Your task to perform on an android device: manage bookmarks in the chrome app Image 0: 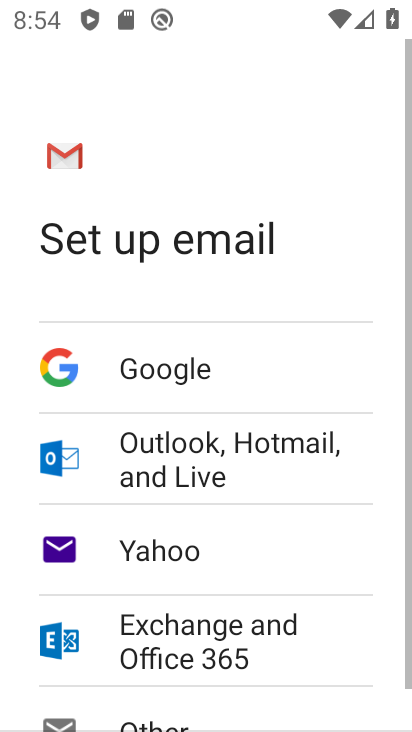
Step 0: press home button
Your task to perform on an android device: manage bookmarks in the chrome app Image 1: 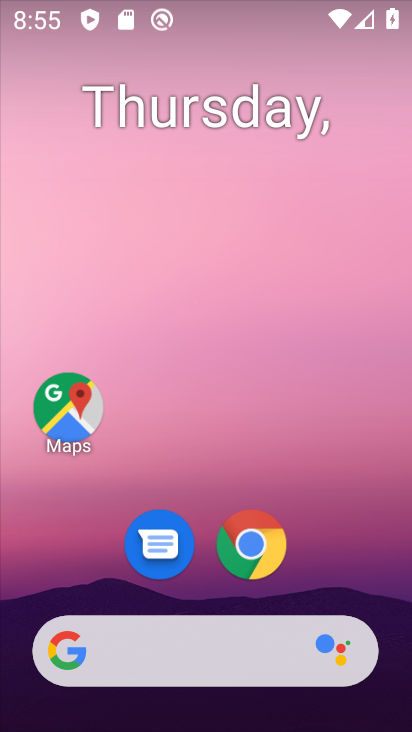
Step 1: click (266, 542)
Your task to perform on an android device: manage bookmarks in the chrome app Image 2: 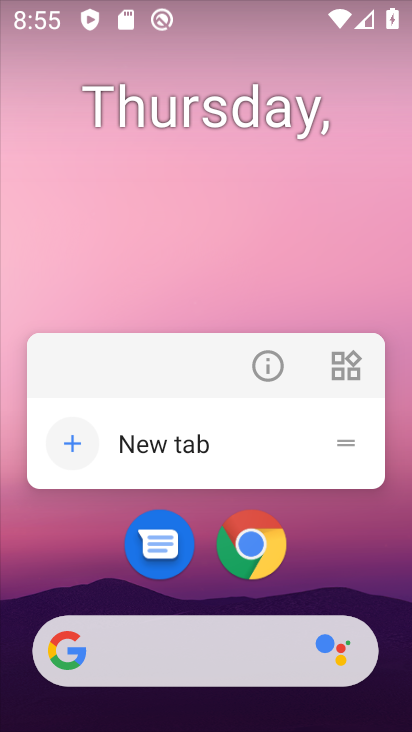
Step 2: click (266, 535)
Your task to perform on an android device: manage bookmarks in the chrome app Image 3: 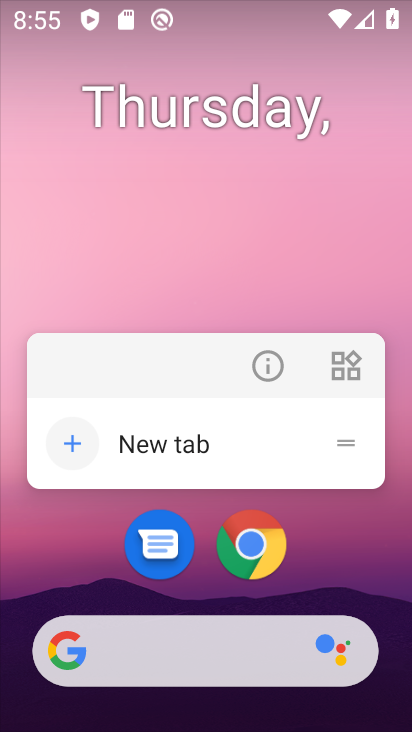
Step 3: click (248, 555)
Your task to perform on an android device: manage bookmarks in the chrome app Image 4: 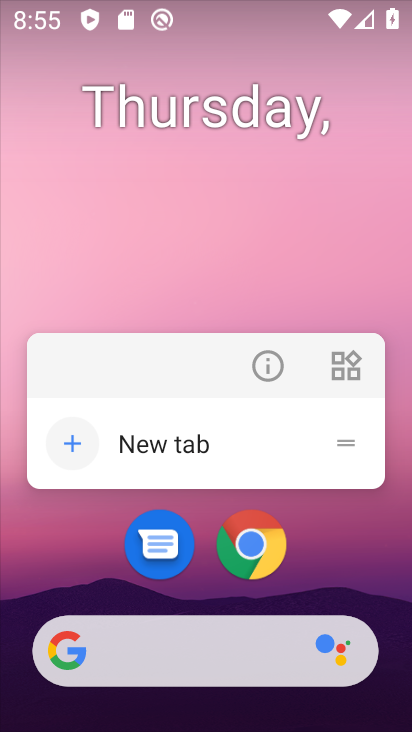
Step 4: click (266, 526)
Your task to perform on an android device: manage bookmarks in the chrome app Image 5: 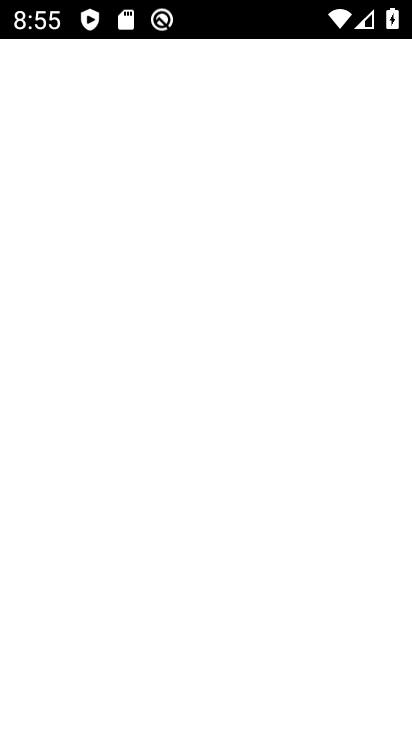
Step 5: click (266, 526)
Your task to perform on an android device: manage bookmarks in the chrome app Image 6: 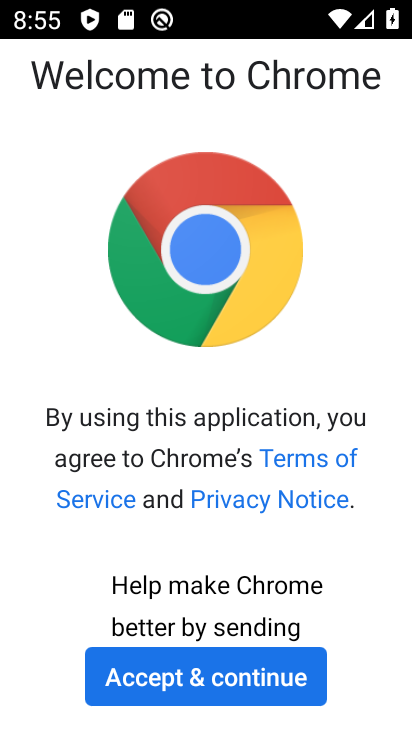
Step 6: click (237, 686)
Your task to perform on an android device: manage bookmarks in the chrome app Image 7: 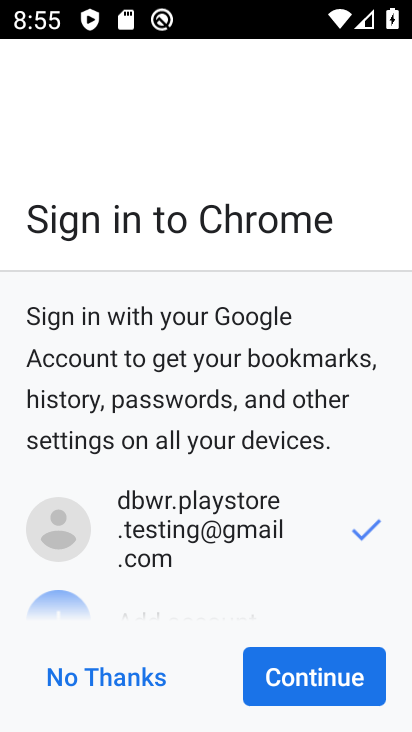
Step 7: click (360, 682)
Your task to perform on an android device: manage bookmarks in the chrome app Image 8: 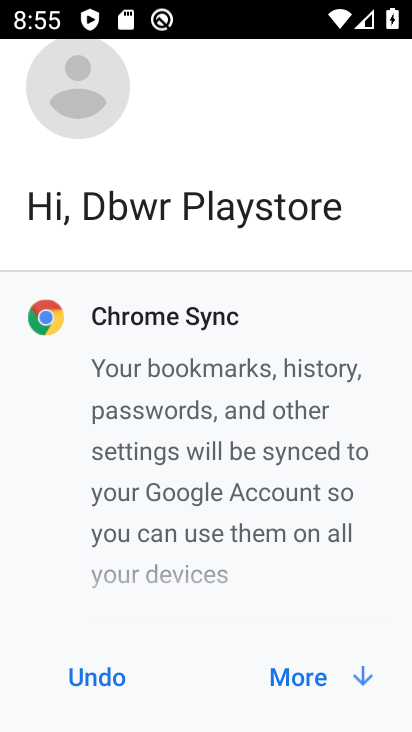
Step 8: click (343, 681)
Your task to perform on an android device: manage bookmarks in the chrome app Image 9: 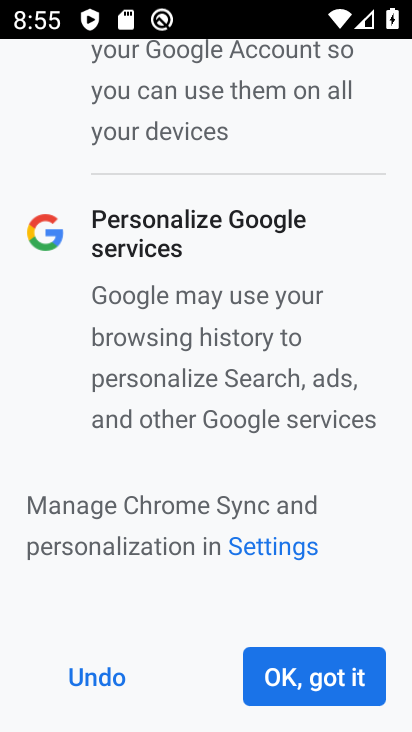
Step 9: click (357, 667)
Your task to perform on an android device: manage bookmarks in the chrome app Image 10: 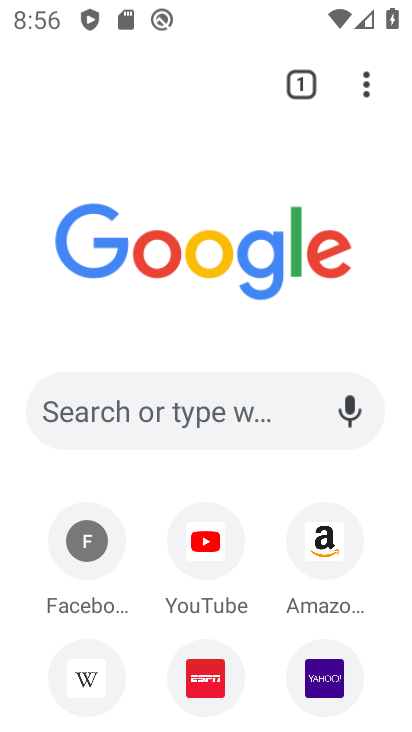
Step 10: drag from (367, 72) to (271, 212)
Your task to perform on an android device: manage bookmarks in the chrome app Image 11: 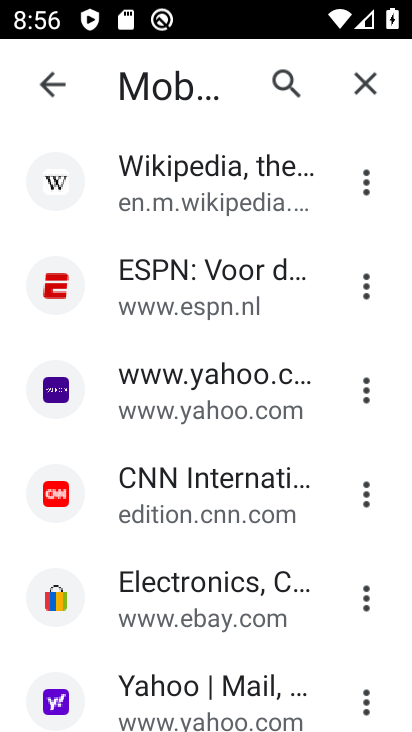
Step 11: click (252, 162)
Your task to perform on an android device: manage bookmarks in the chrome app Image 12: 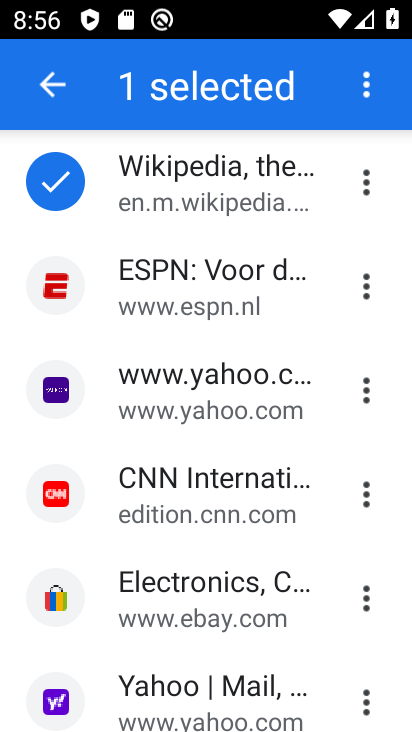
Step 12: click (164, 291)
Your task to perform on an android device: manage bookmarks in the chrome app Image 13: 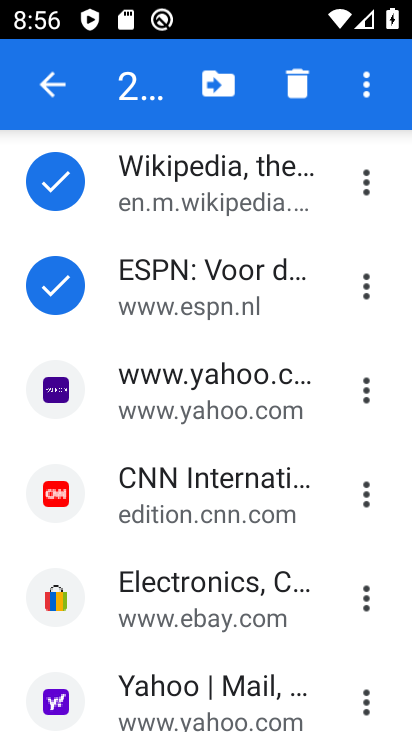
Step 13: click (165, 399)
Your task to perform on an android device: manage bookmarks in the chrome app Image 14: 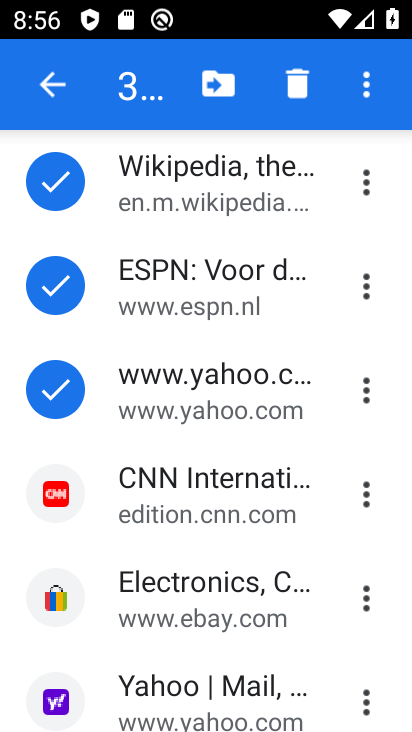
Step 14: click (165, 488)
Your task to perform on an android device: manage bookmarks in the chrome app Image 15: 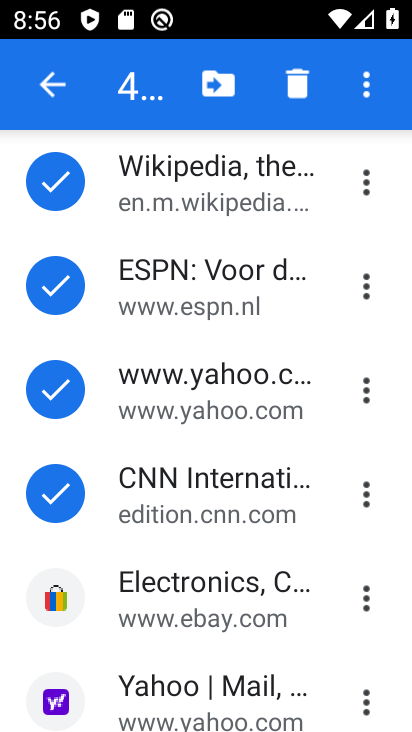
Step 15: click (169, 594)
Your task to perform on an android device: manage bookmarks in the chrome app Image 16: 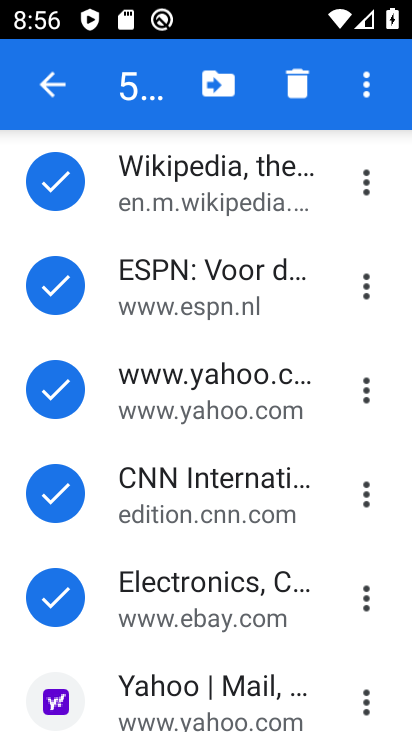
Step 16: drag from (157, 607) to (300, 60)
Your task to perform on an android device: manage bookmarks in the chrome app Image 17: 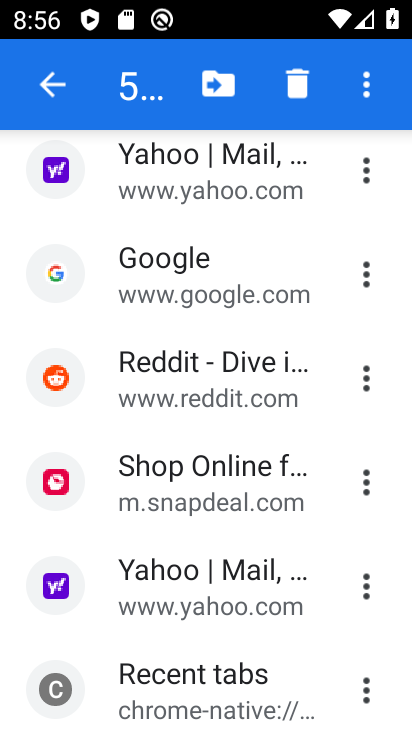
Step 17: click (190, 167)
Your task to perform on an android device: manage bookmarks in the chrome app Image 18: 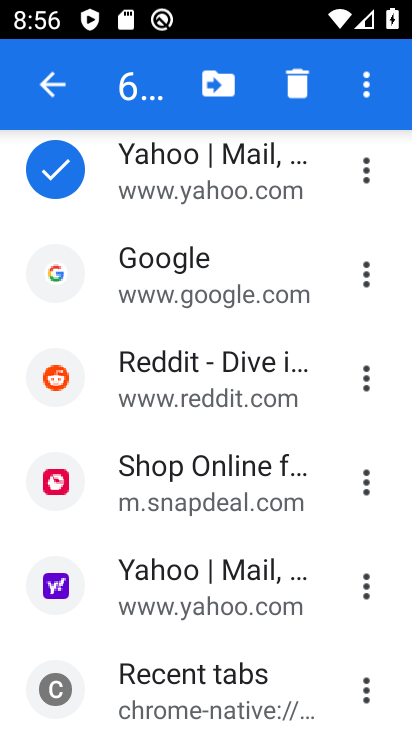
Step 18: click (193, 250)
Your task to perform on an android device: manage bookmarks in the chrome app Image 19: 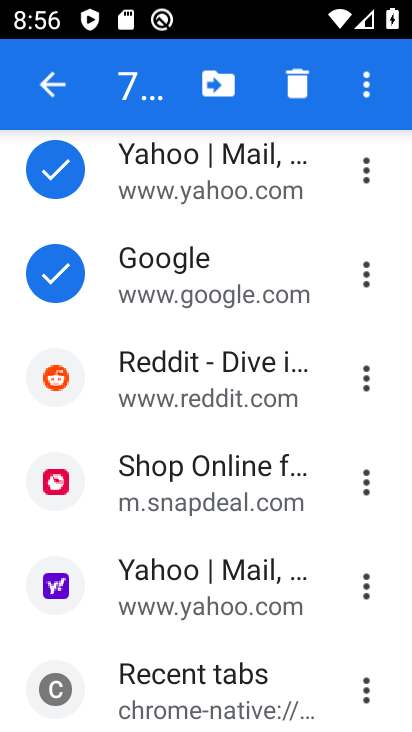
Step 19: click (187, 380)
Your task to perform on an android device: manage bookmarks in the chrome app Image 20: 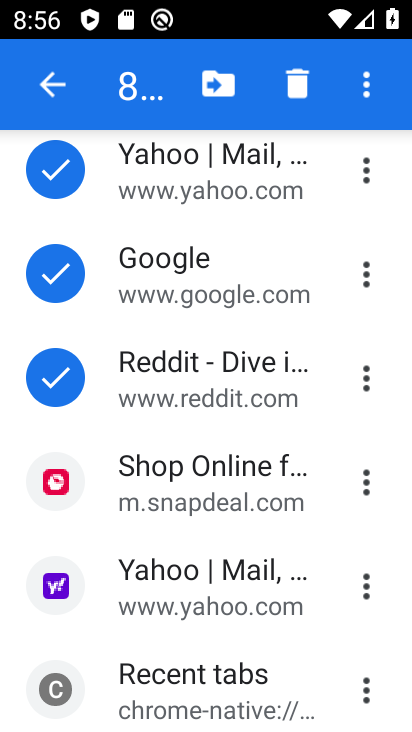
Step 20: click (151, 499)
Your task to perform on an android device: manage bookmarks in the chrome app Image 21: 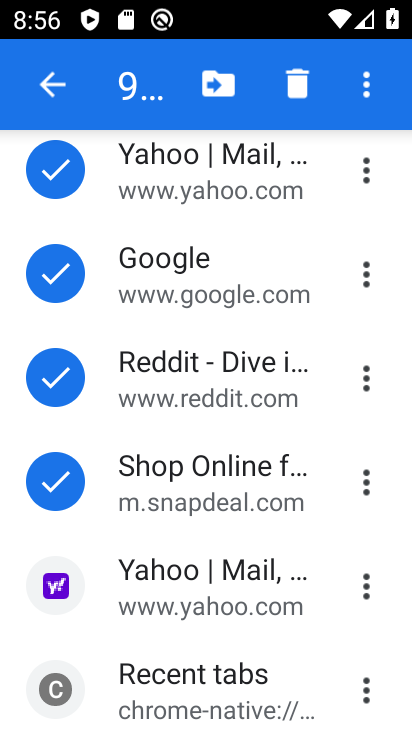
Step 21: click (162, 593)
Your task to perform on an android device: manage bookmarks in the chrome app Image 22: 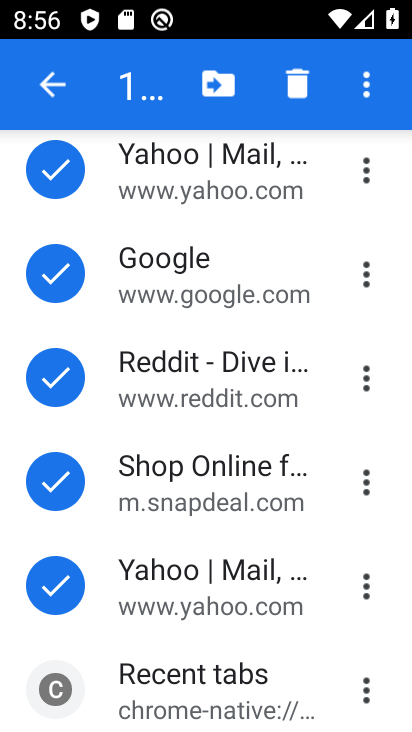
Step 22: click (162, 684)
Your task to perform on an android device: manage bookmarks in the chrome app Image 23: 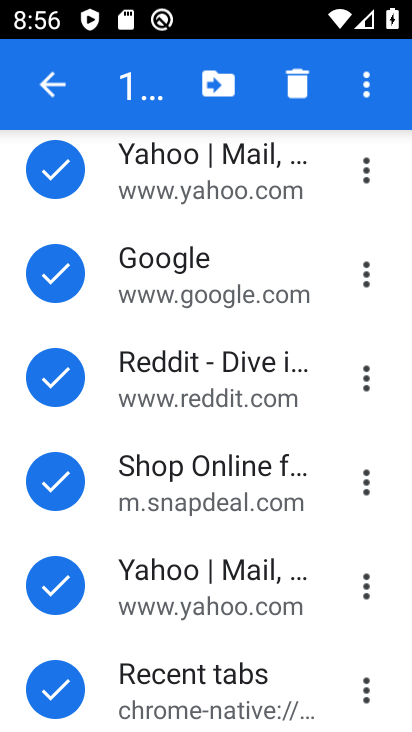
Step 23: drag from (174, 606) to (299, 40)
Your task to perform on an android device: manage bookmarks in the chrome app Image 24: 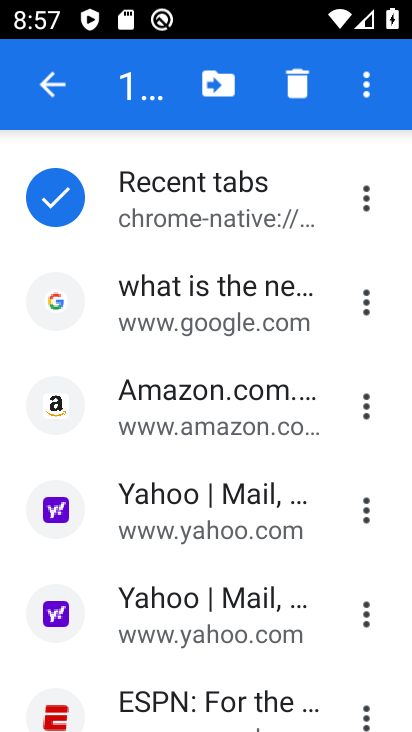
Step 24: click (195, 296)
Your task to perform on an android device: manage bookmarks in the chrome app Image 25: 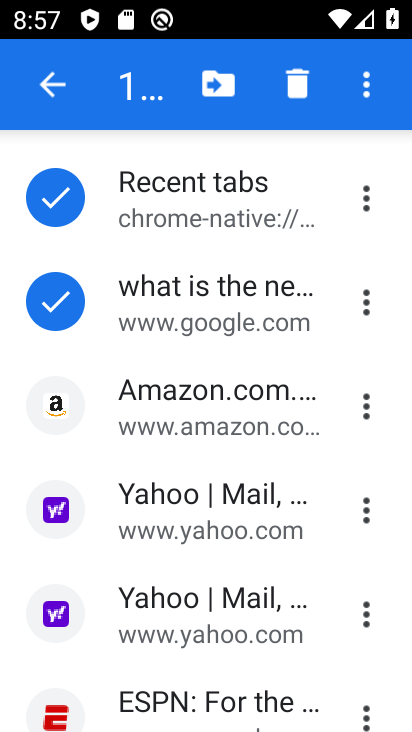
Step 25: click (176, 392)
Your task to perform on an android device: manage bookmarks in the chrome app Image 26: 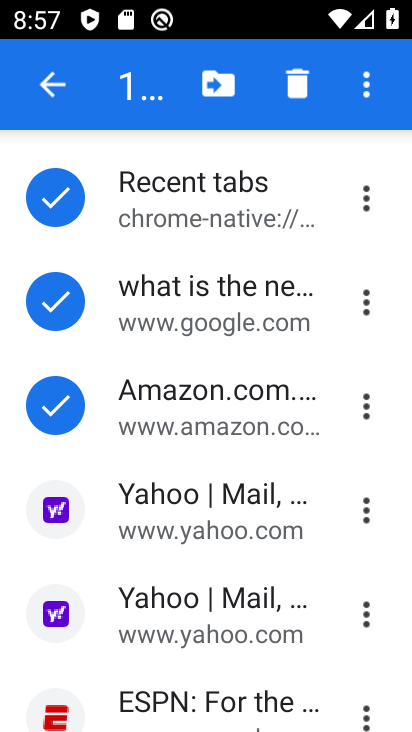
Step 26: click (159, 506)
Your task to perform on an android device: manage bookmarks in the chrome app Image 27: 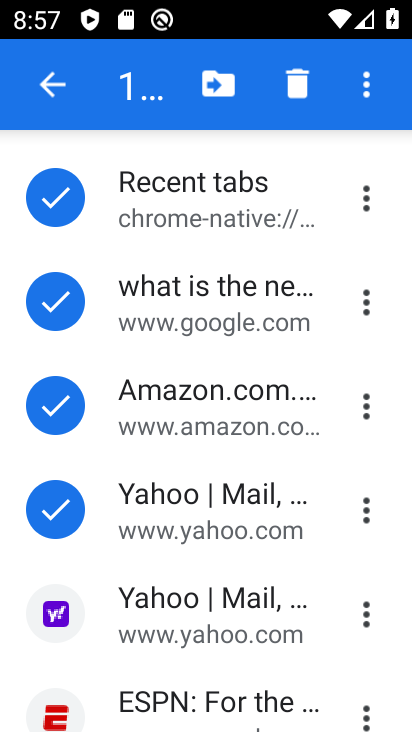
Step 27: click (162, 601)
Your task to perform on an android device: manage bookmarks in the chrome app Image 28: 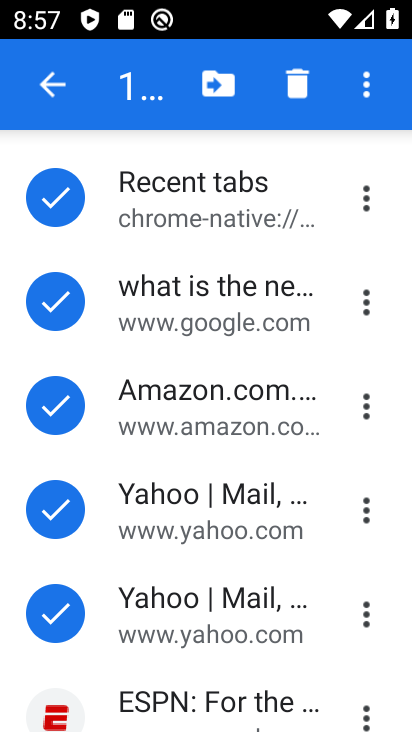
Step 28: click (155, 722)
Your task to perform on an android device: manage bookmarks in the chrome app Image 29: 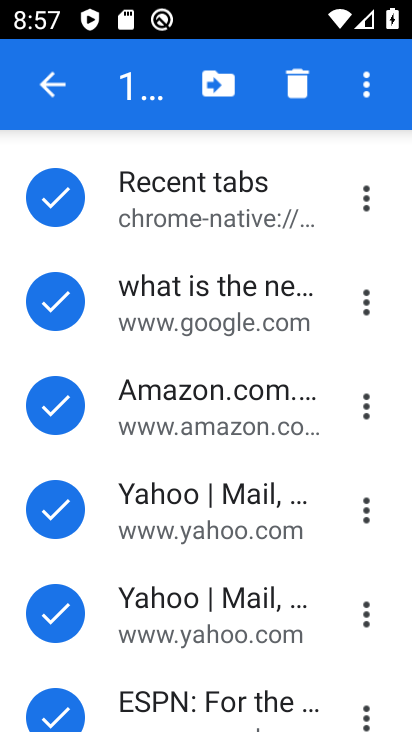
Step 29: drag from (162, 696) to (330, 8)
Your task to perform on an android device: manage bookmarks in the chrome app Image 30: 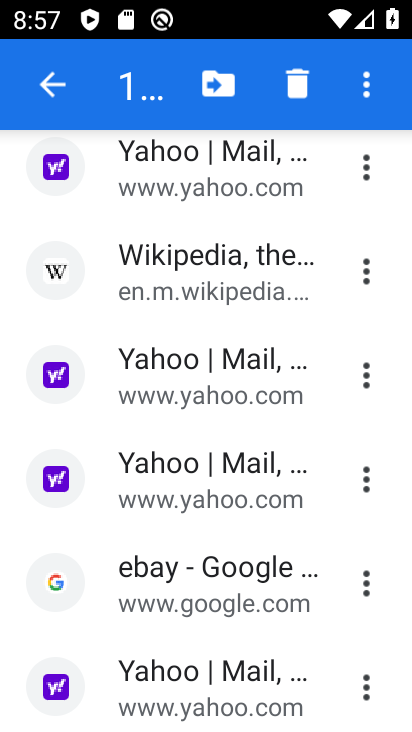
Step 30: click (174, 169)
Your task to perform on an android device: manage bookmarks in the chrome app Image 31: 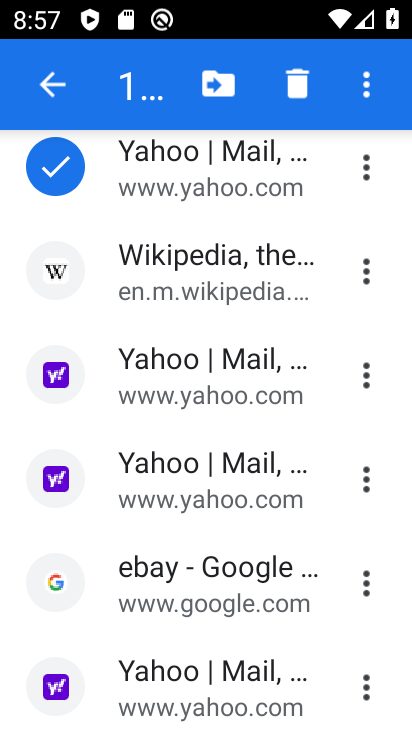
Step 31: click (175, 266)
Your task to perform on an android device: manage bookmarks in the chrome app Image 32: 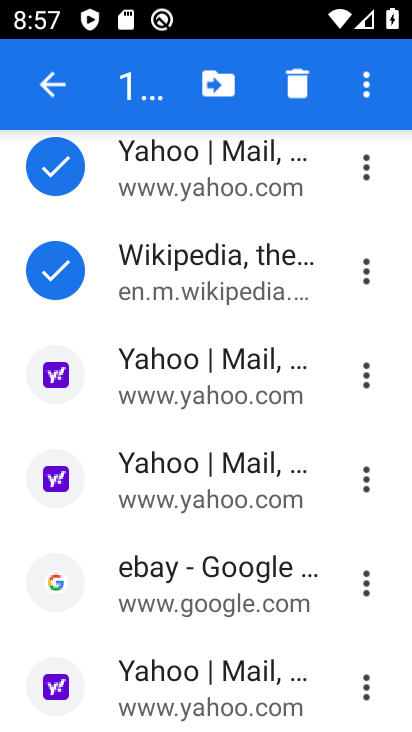
Step 32: drag from (170, 394) to (161, 488)
Your task to perform on an android device: manage bookmarks in the chrome app Image 33: 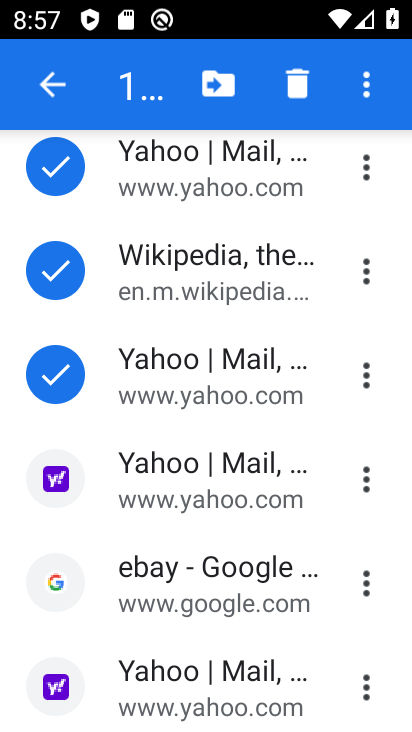
Step 33: click (160, 596)
Your task to perform on an android device: manage bookmarks in the chrome app Image 34: 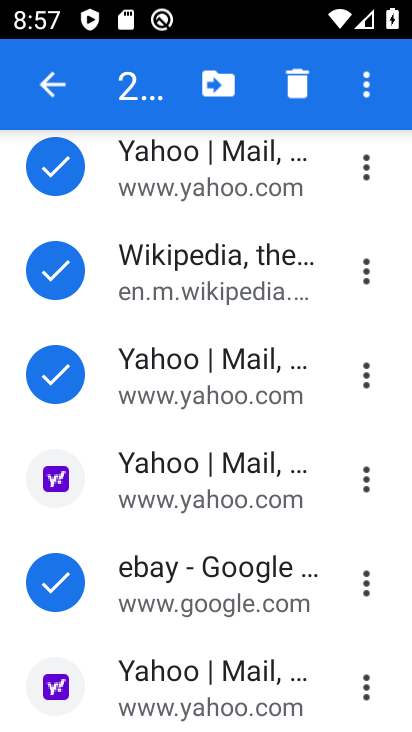
Step 34: click (156, 489)
Your task to perform on an android device: manage bookmarks in the chrome app Image 35: 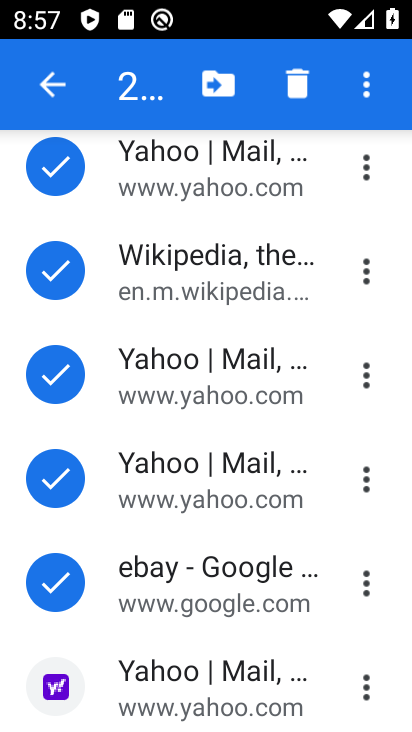
Step 35: drag from (135, 624) to (245, 53)
Your task to perform on an android device: manage bookmarks in the chrome app Image 36: 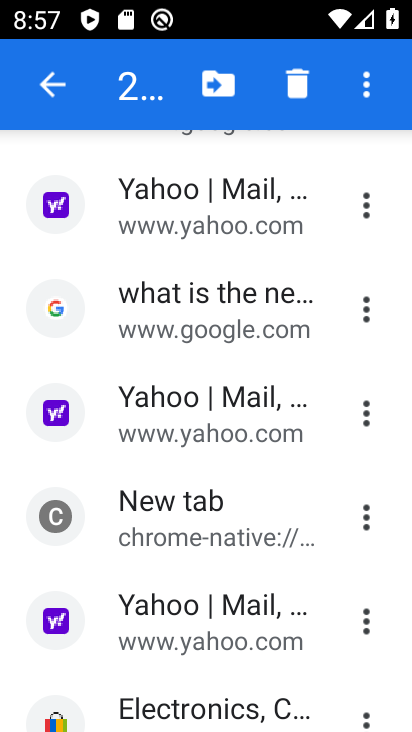
Step 36: click (184, 207)
Your task to perform on an android device: manage bookmarks in the chrome app Image 37: 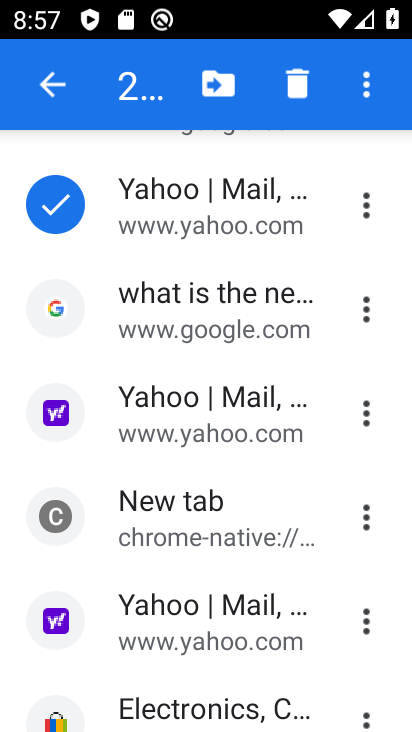
Step 37: click (177, 338)
Your task to perform on an android device: manage bookmarks in the chrome app Image 38: 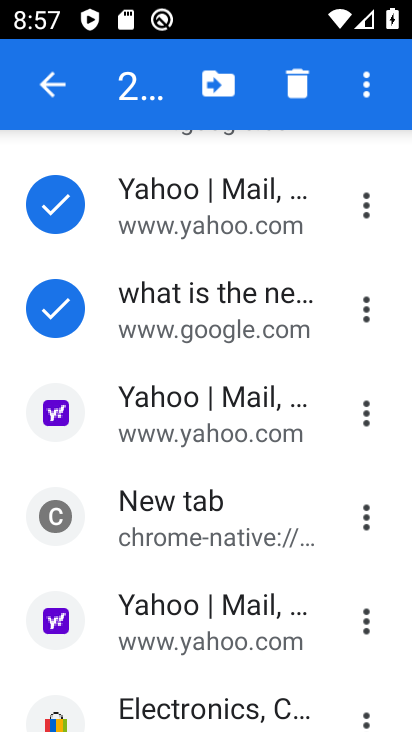
Step 38: click (161, 410)
Your task to perform on an android device: manage bookmarks in the chrome app Image 39: 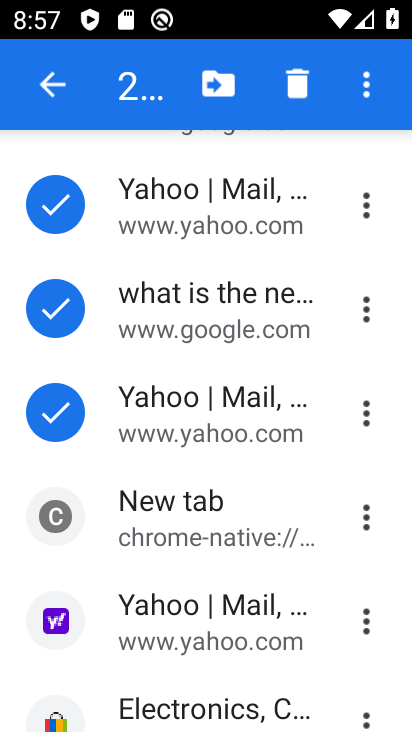
Step 39: click (146, 521)
Your task to perform on an android device: manage bookmarks in the chrome app Image 40: 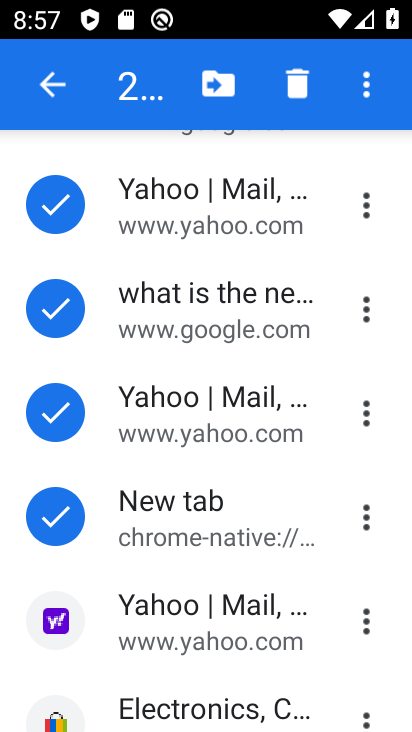
Step 40: click (139, 621)
Your task to perform on an android device: manage bookmarks in the chrome app Image 41: 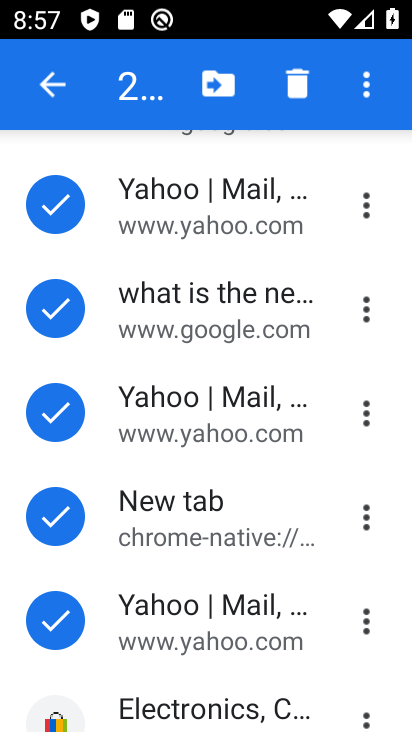
Step 41: drag from (177, 422) to (343, 89)
Your task to perform on an android device: manage bookmarks in the chrome app Image 42: 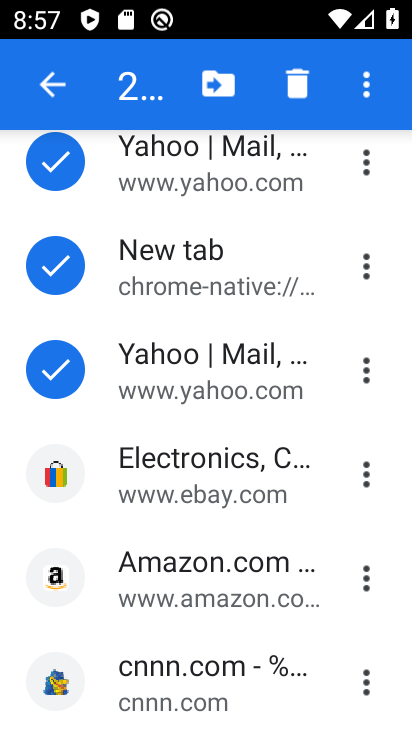
Step 42: click (185, 452)
Your task to perform on an android device: manage bookmarks in the chrome app Image 43: 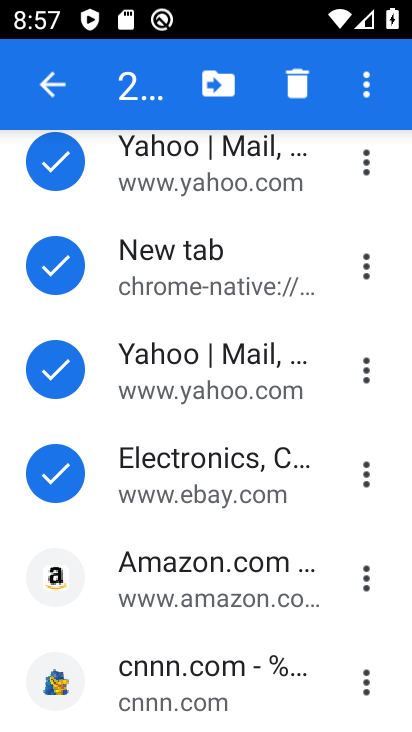
Step 43: click (156, 572)
Your task to perform on an android device: manage bookmarks in the chrome app Image 44: 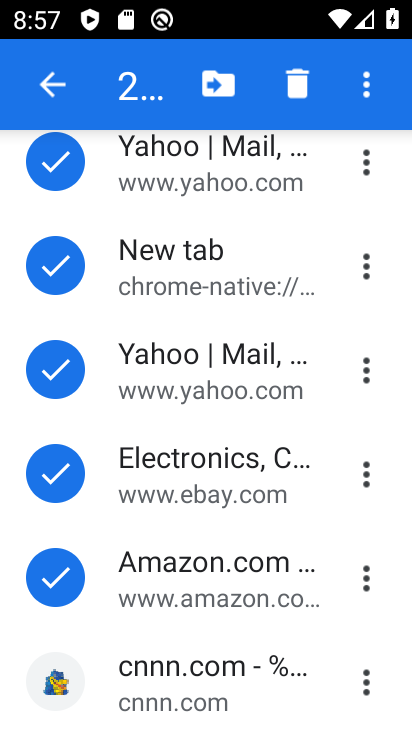
Step 44: click (162, 686)
Your task to perform on an android device: manage bookmarks in the chrome app Image 45: 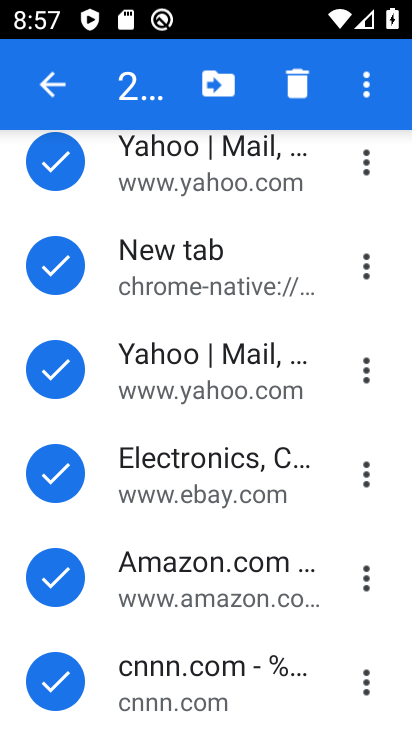
Step 45: drag from (173, 693) to (317, 106)
Your task to perform on an android device: manage bookmarks in the chrome app Image 46: 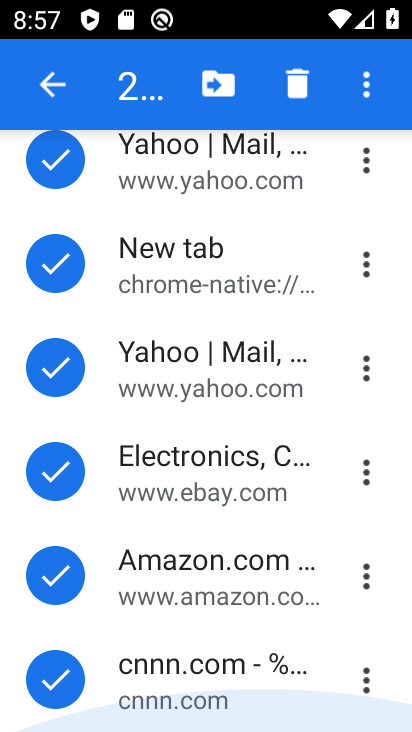
Step 46: click (215, 81)
Your task to perform on an android device: manage bookmarks in the chrome app Image 47: 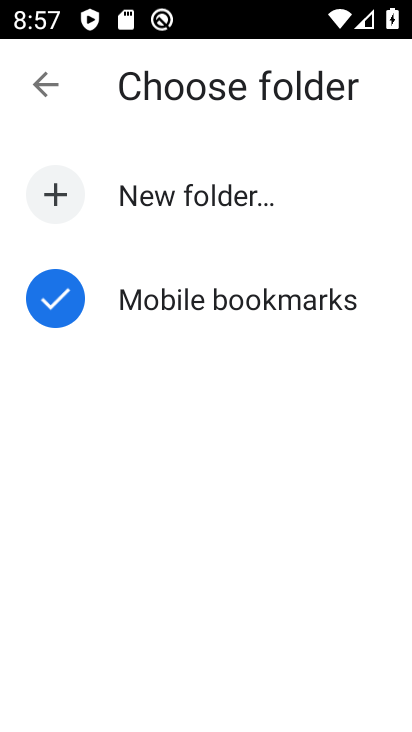
Step 47: click (229, 302)
Your task to perform on an android device: manage bookmarks in the chrome app Image 48: 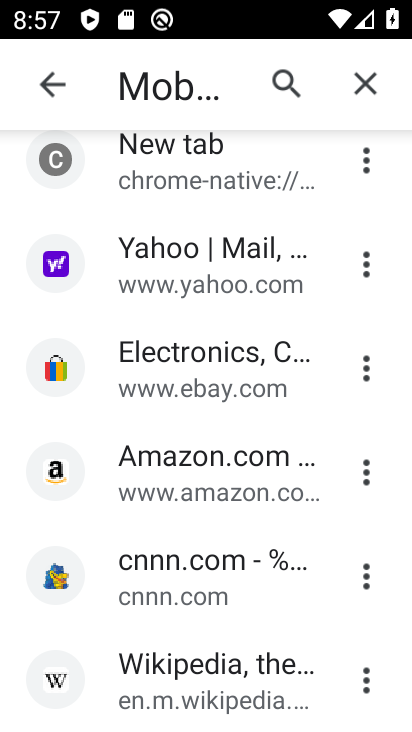
Step 48: task complete